Your task to perform on an android device: uninstall "Yahoo Mail" Image 0: 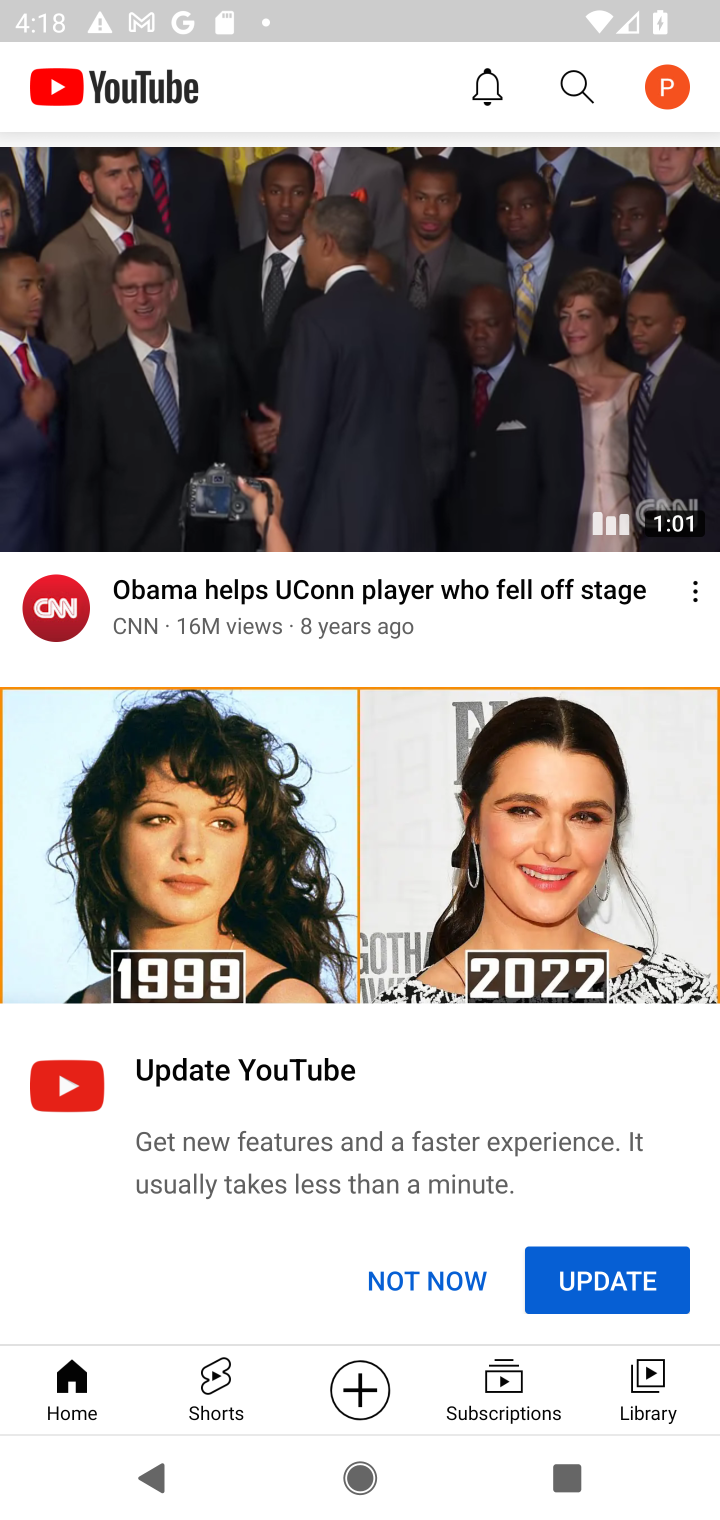
Step 0: press home button
Your task to perform on an android device: uninstall "Yahoo Mail" Image 1: 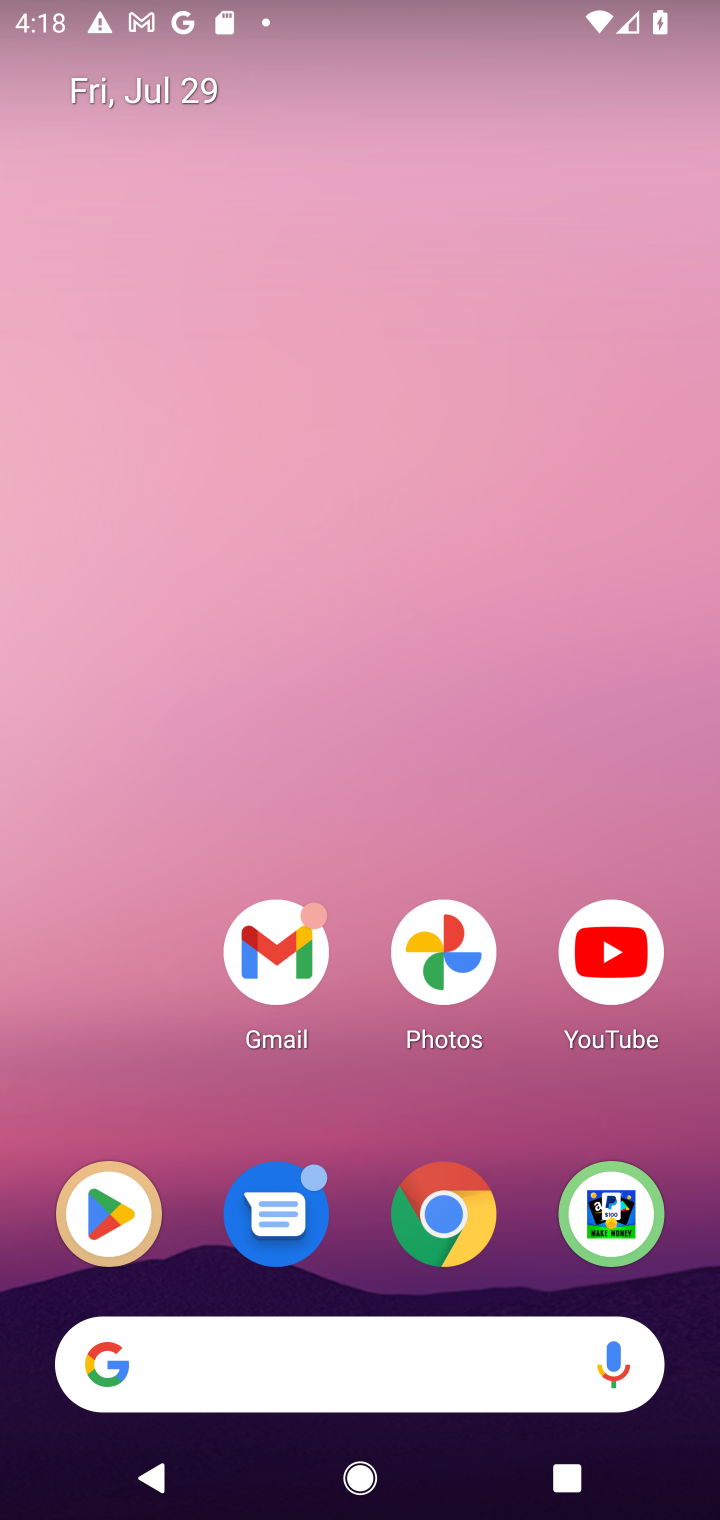
Step 1: click (95, 1237)
Your task to perform on an android device: uninstall "Yahoo Mail" Image 2: 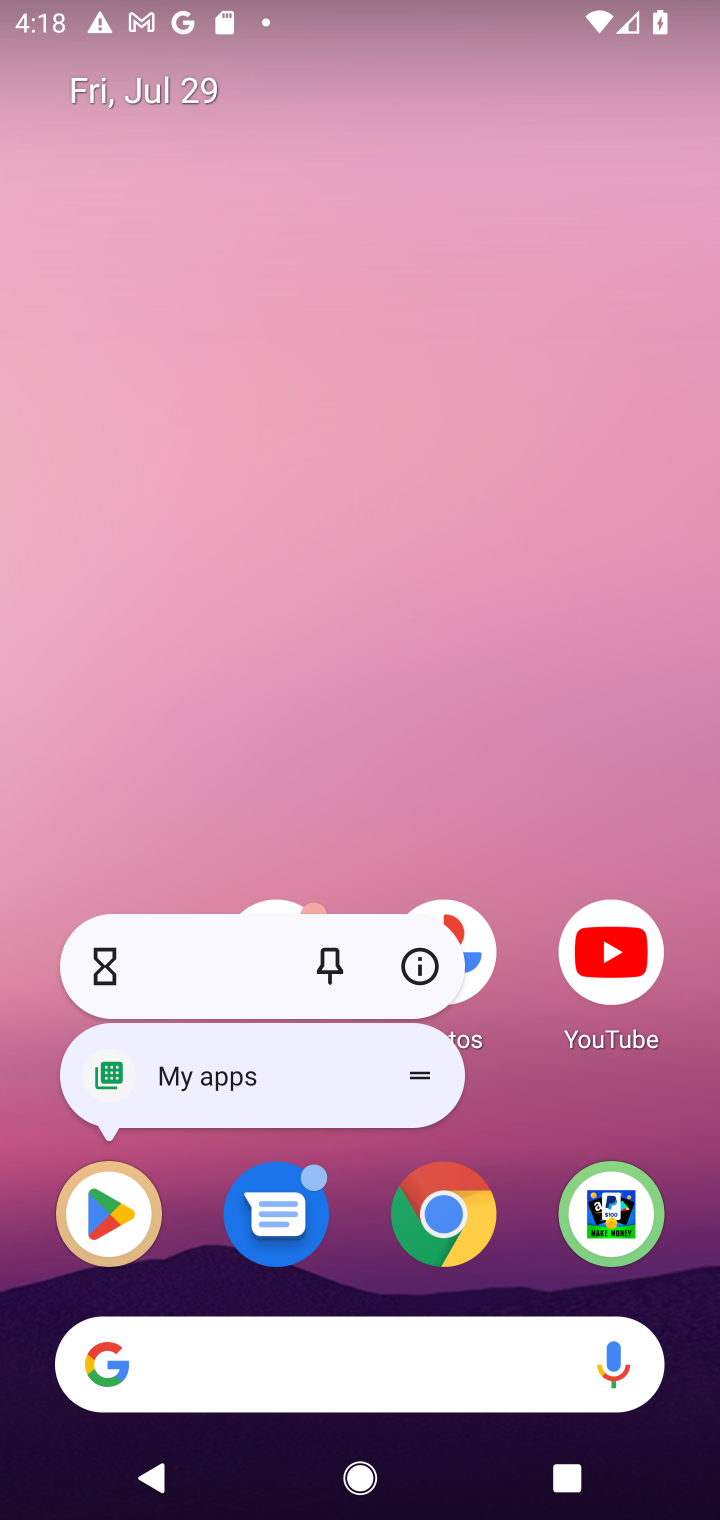
Step 2: click (125, 1224)
Your task to perform on an android device: uninstall "Yahoo Mail" Image 3: 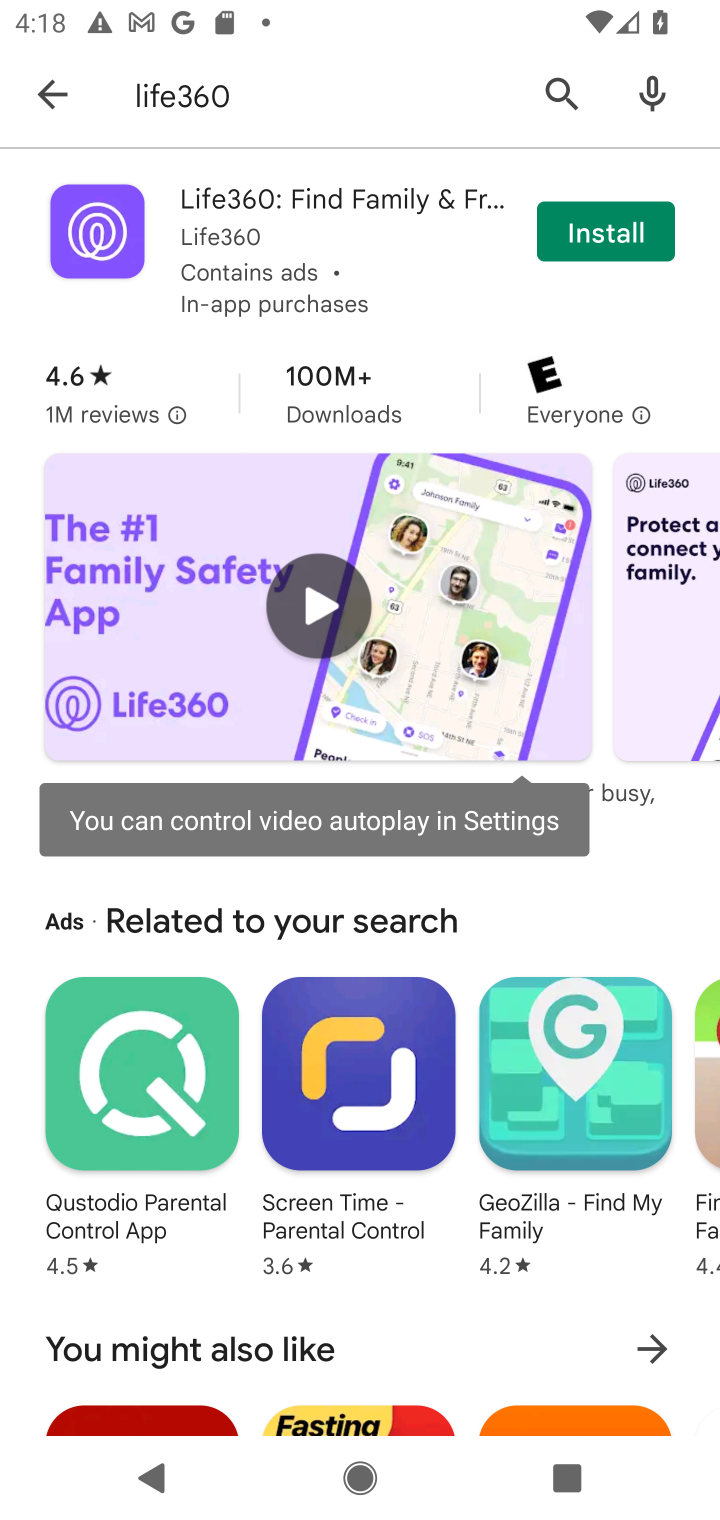
Step 3: click (276, 107)
Your task to perform on an android device: uninstall "Yahoo Mail" Image 4: 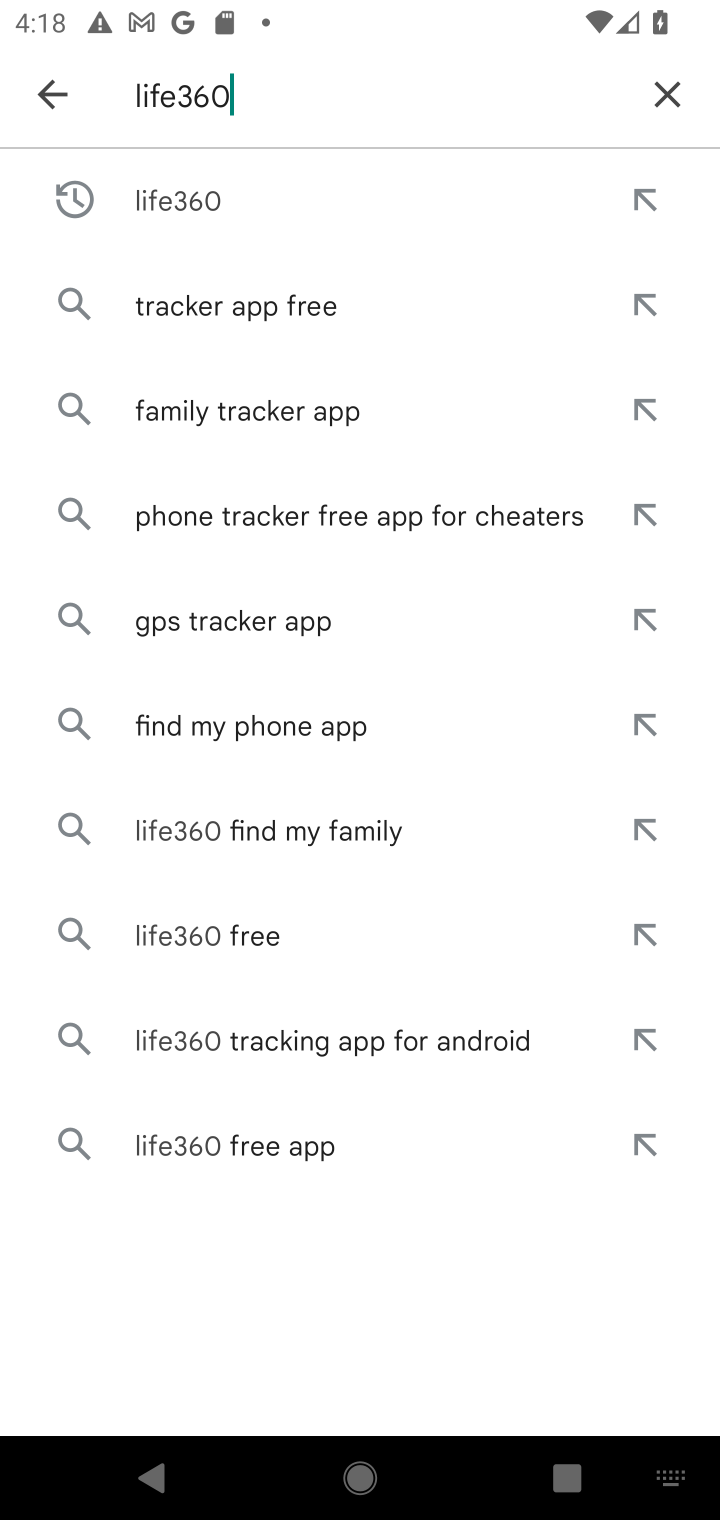
Step 4: click (672, 83)
Your task to perform on an android device: uninstall "Yahoo Mail" Image 5: 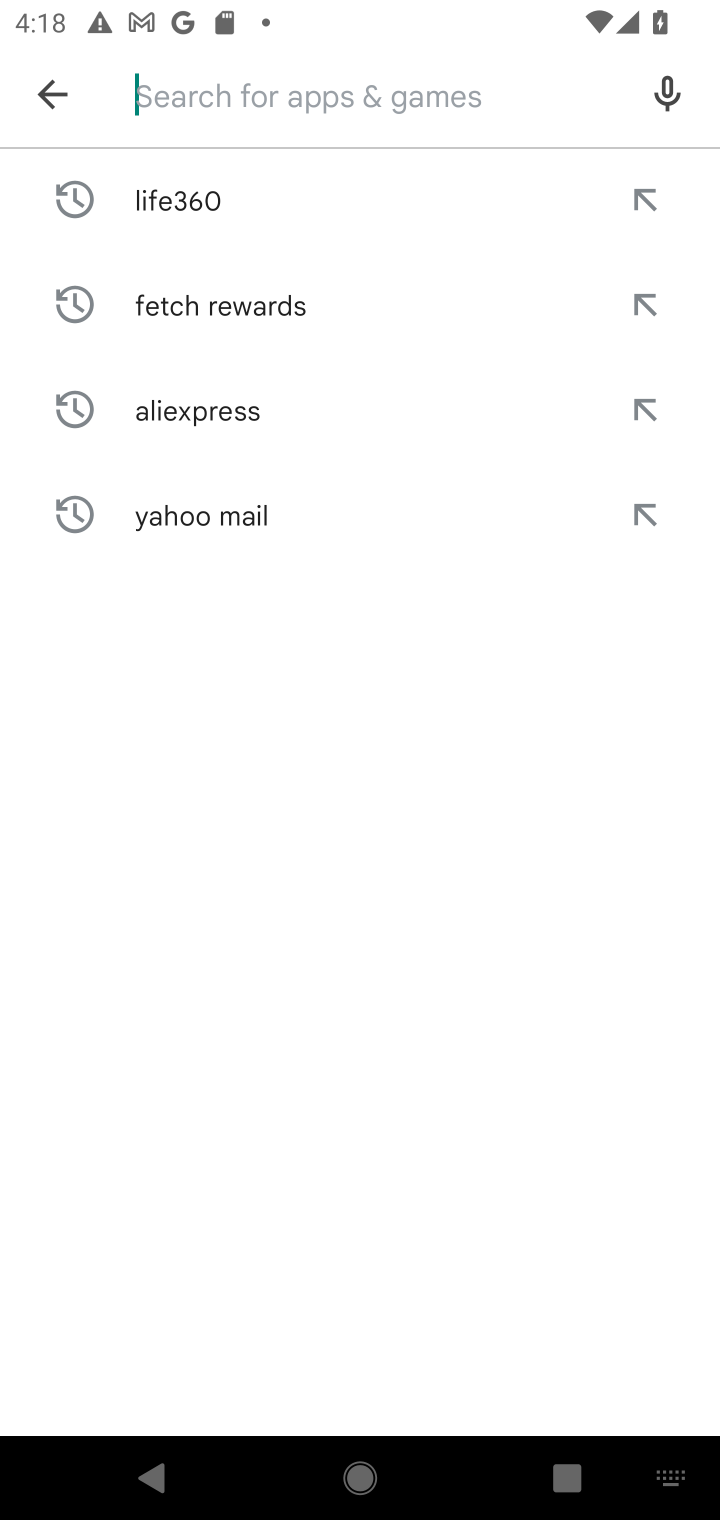
Step 5: type "Yahoo Mail"
Your task to perform on an android device: uninstall "Yahoo Mail" Image 6: 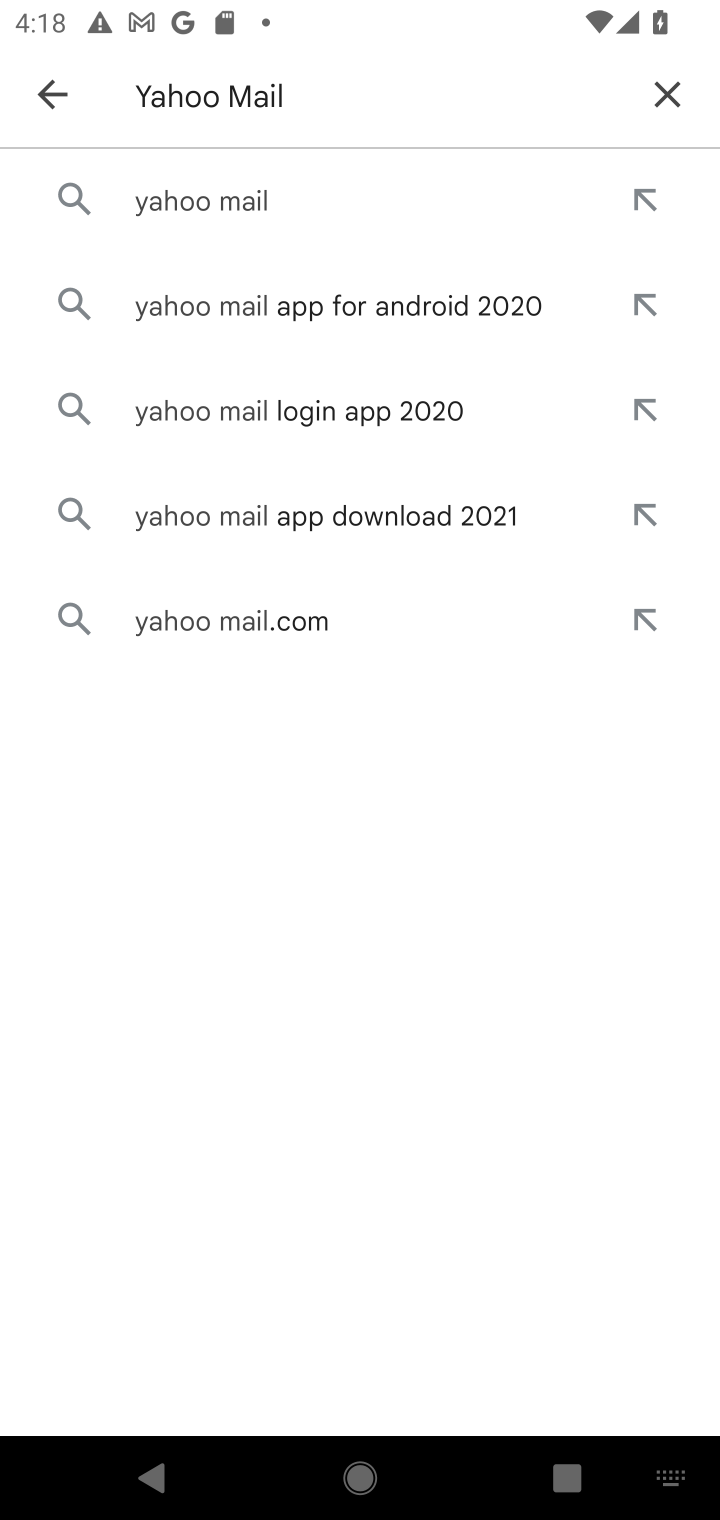
Step 6: click (286, 202)
Your task to perform on an android device: uninstall "Yahoo Mail" Image 7: 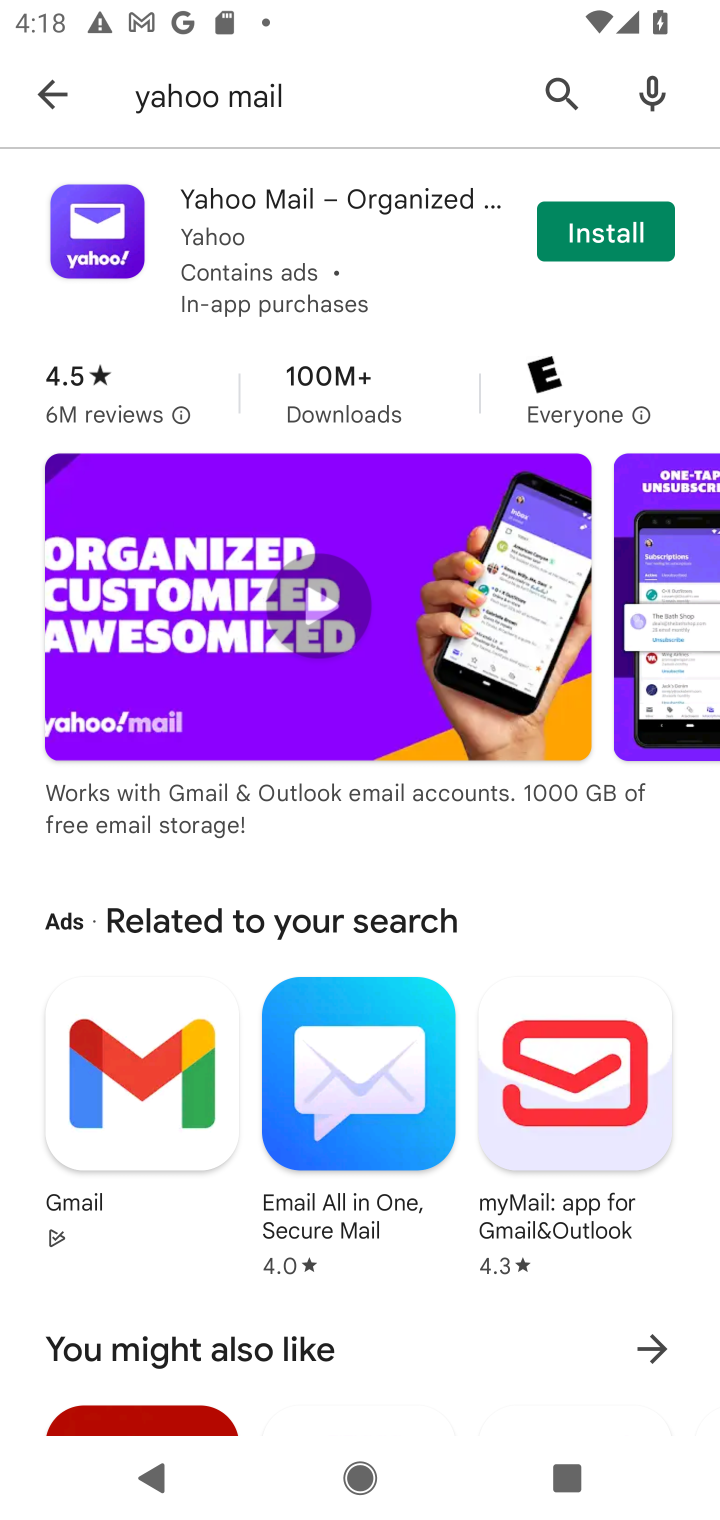
Step 7: task complete